Your task to perform on an android device: delete browsing data in the chrome app Image 0: 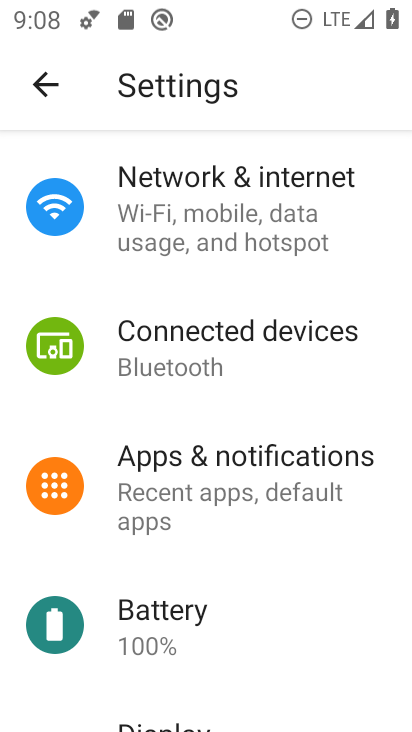
Step 0: press home button
Your task to perform on an android device: delete browsing data in the chrome app Image 1: 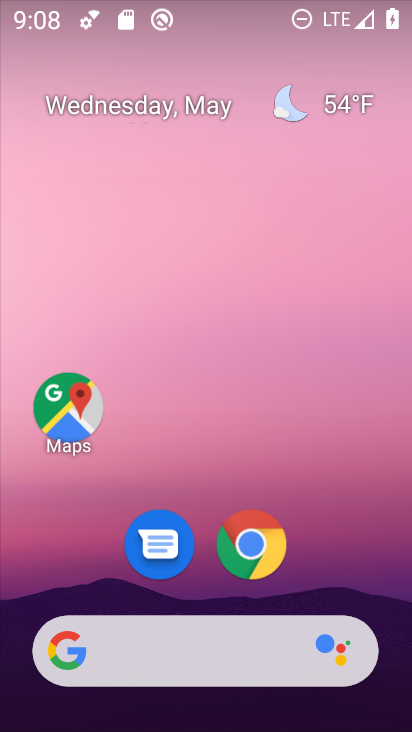
Step 1: click (248, 545)
Your task to perform on an android device: delete browsing data in the chrome app Image 2: 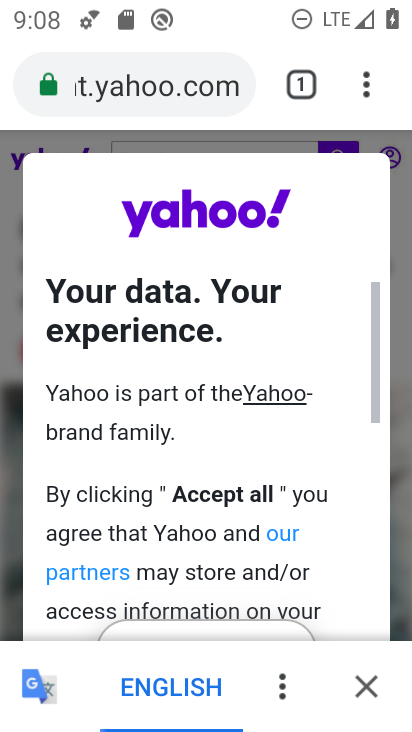
Step 2: click (347, 80)
Your task to perform on an android device: delete browsing data in the chrome app Image 3: 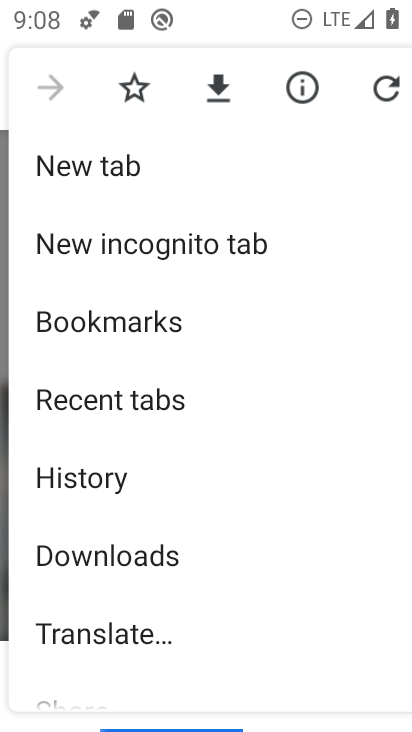
Step 3: drag from (85, 569) to (140, 275)
Your task to perform on an android device: delete browsing data in the chrome app Image 4: 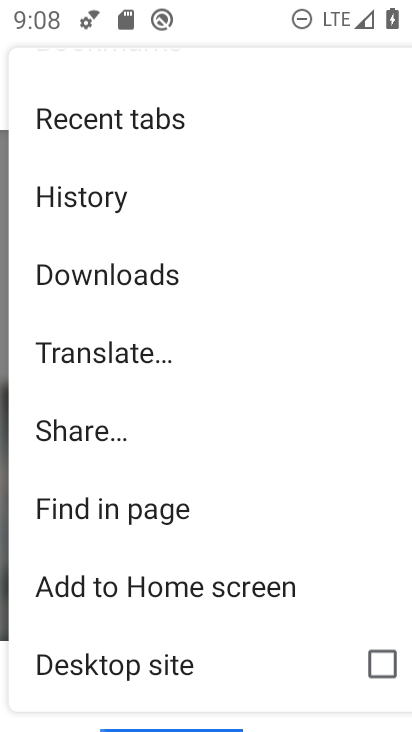
Step 4: drag from (119, 623) to (171, 298)
Your task to perform on an android device: delete browsing data in the chrome app Image 5: 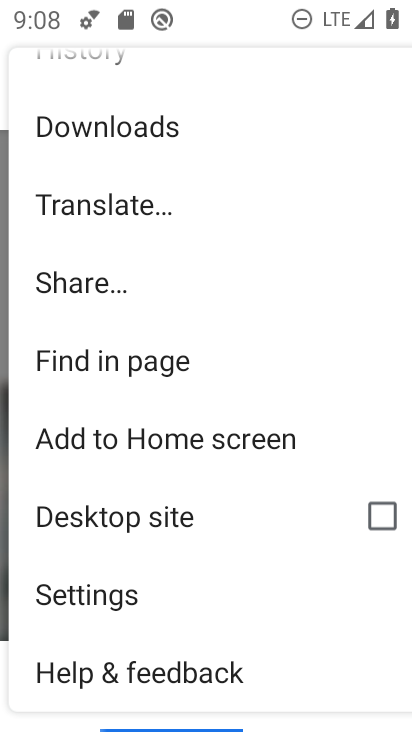
Step 5: drag from (175, 285) to (208, 679)
Your task to perform on an android device: delete browsing data in the chrome app Image 6: 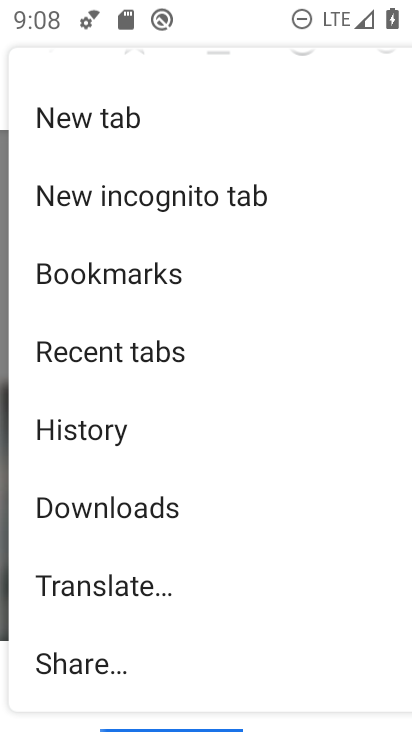
Step 6: click (149, 424)
Your task to perform on an android device: delete browsing data in the chrome app Image 7: 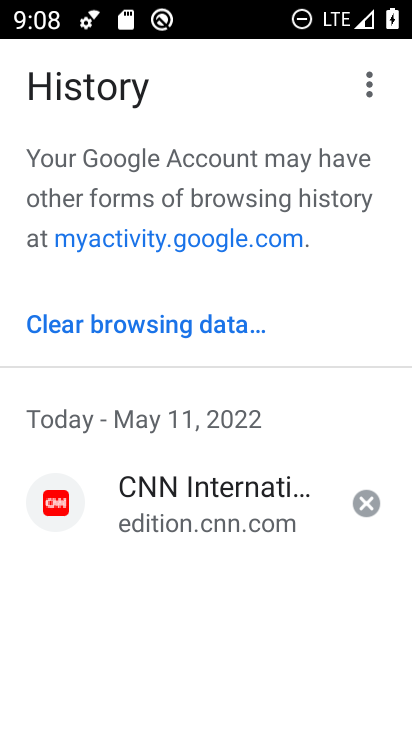
Step 7: click (115, 342)
Your task to perform on an android device: delete browsing data in the chrome app Image 8: 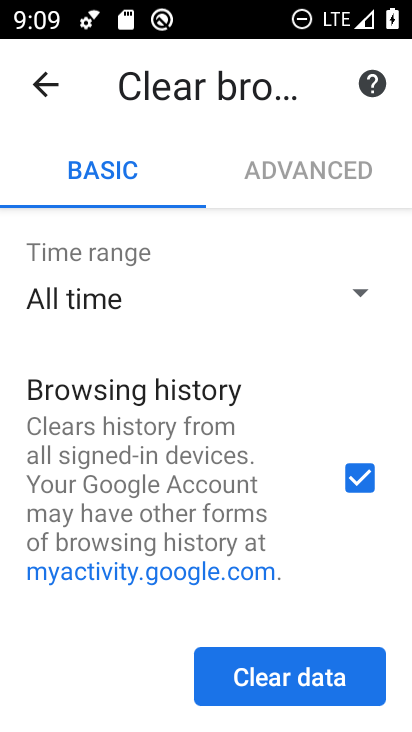
Step 8: click (310, 666)
Your task to perform on an android device: delete browsing data in the chrome app Image 9: 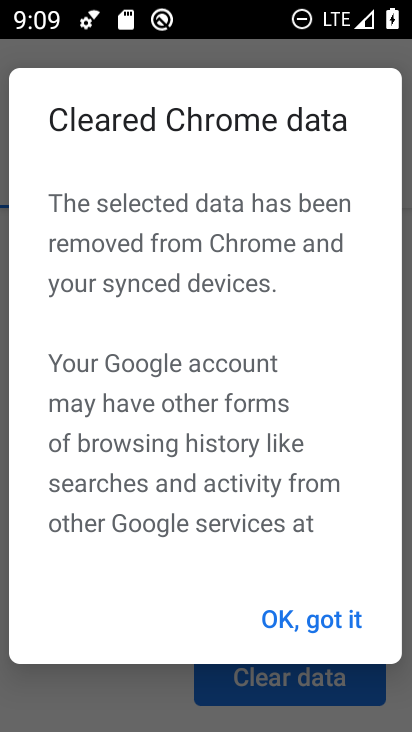
Step 9: click (301, 621)
Your task to perform on an android device: delete browsing data in the chrome app Image 10: 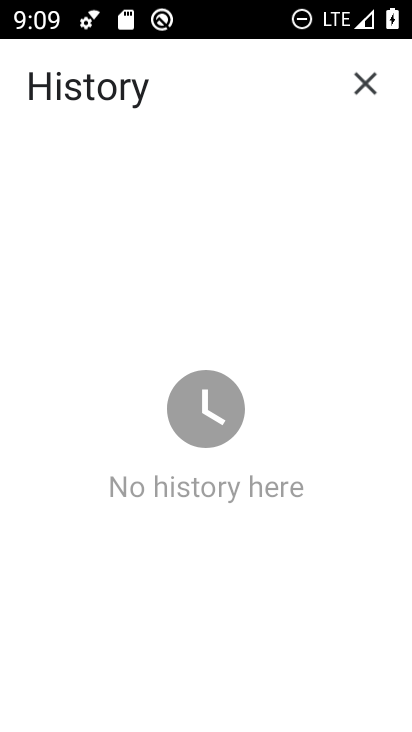
Step 10: task complete